Your task to perform on an android device: delete the emails in spam in the gmail app Image 0: 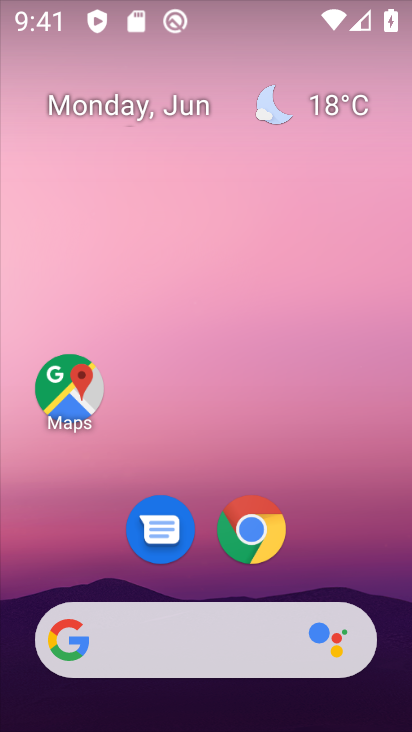
Step 0: drag from (159, 666) to (257, 73)
Your task to perform on an android device: delete the emails in spam in the gmail app Image 1: 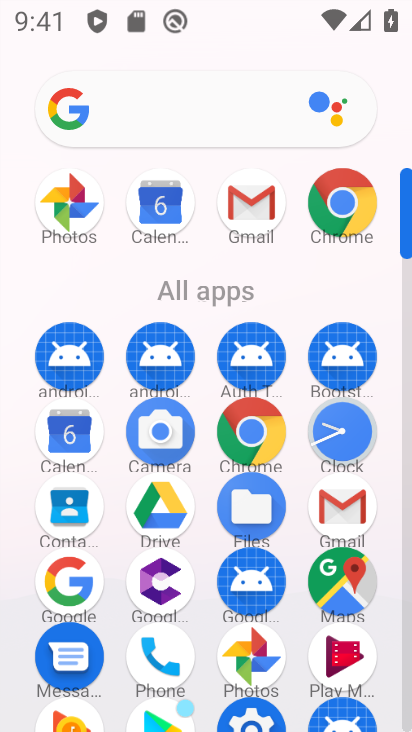
Step 1: click (256, 194)
Your task to perform on an android device: delete the emails in spam in the gmail app Image 2: 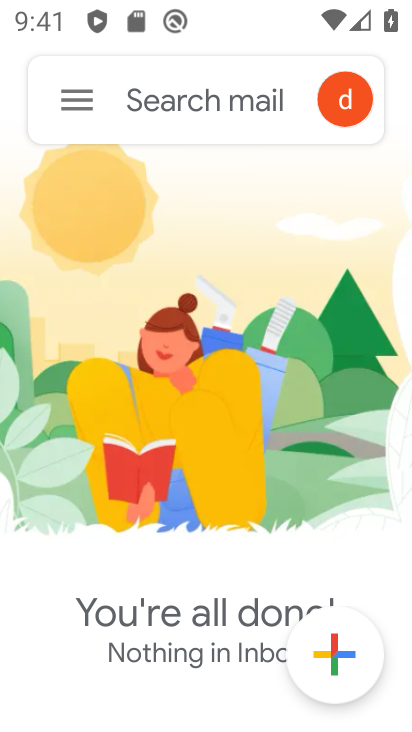
Step 2: click (71, 97)
Your task to perform on an android device: delete the emails in spam in the gmail app Image 3: 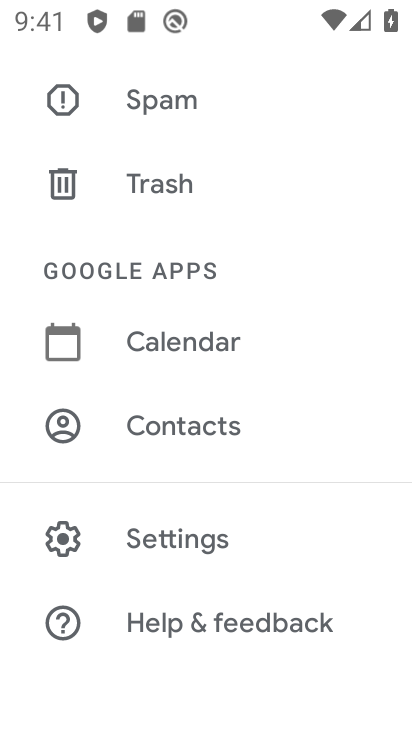
Step 3: click (140, 98)
Your task to perform on an android device: delete the emails in spam in the gmail app Image 4: 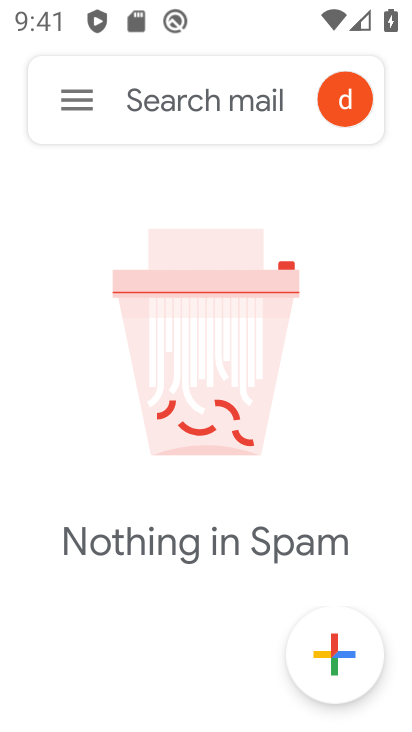
Step 4: task complete